Your task to perform on an android device: turn off improve location accuracy Image 0: 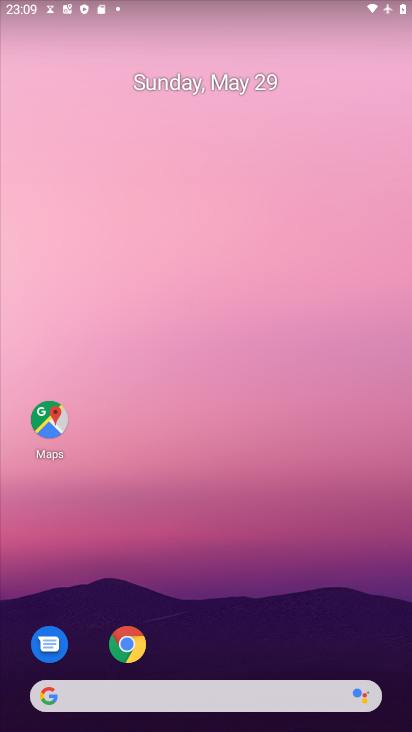
Step 0: drag from (217, 622) to (247, 271)
Your task to perform on an android device: turn off improve location accuracy Image 1: 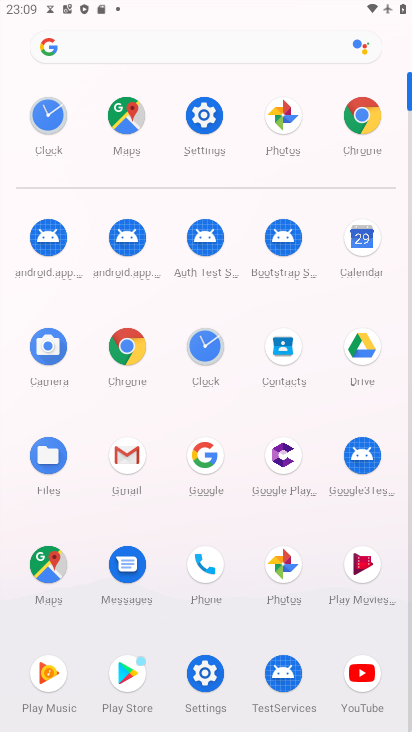
Step 1: click (201, 113)
Your task to perform on an android device: turn off improve location accuracy Image 2: 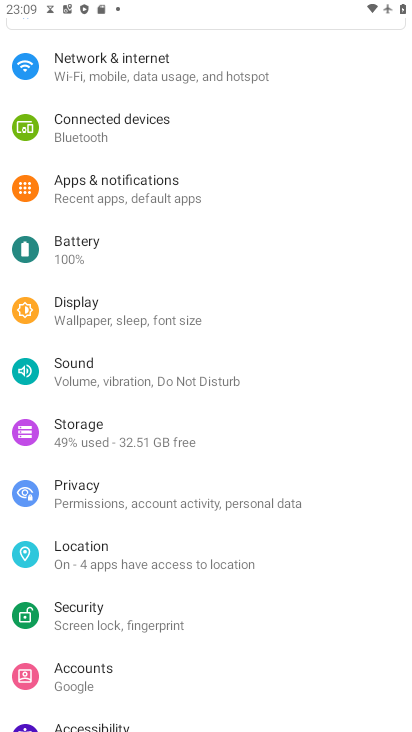
Step 2: click (139, 557)
Your task to perform on an android device: turn off improve location accuracy Image 3: 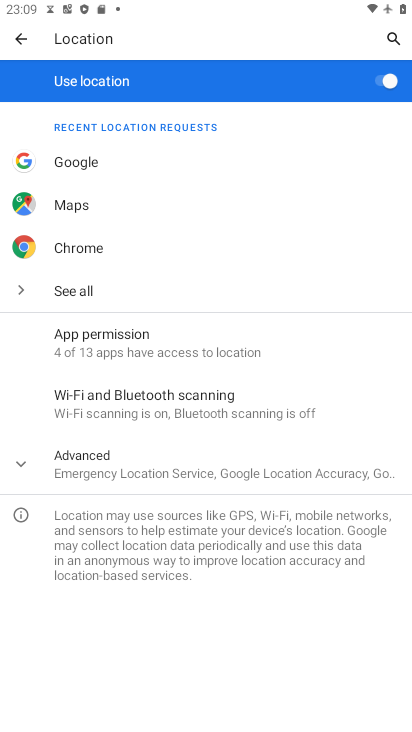
Step 3: click (141, 473)
Your task to perform on an android device: turn off improve location accuracy Image 4: 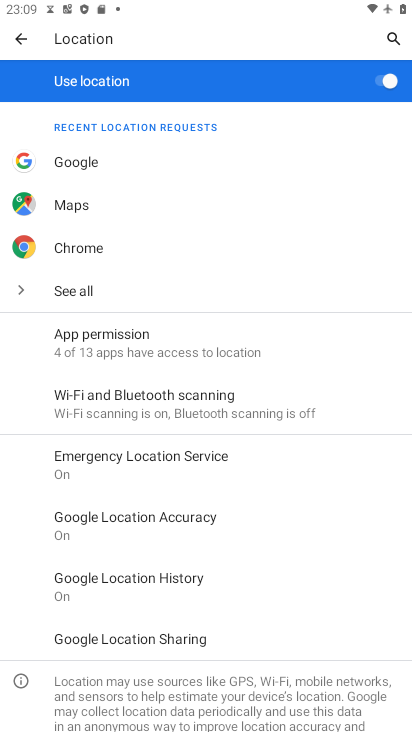
Step 4: click (127, 530)
Your task to perform on an android device: turn off improve location accuracy Image 5: 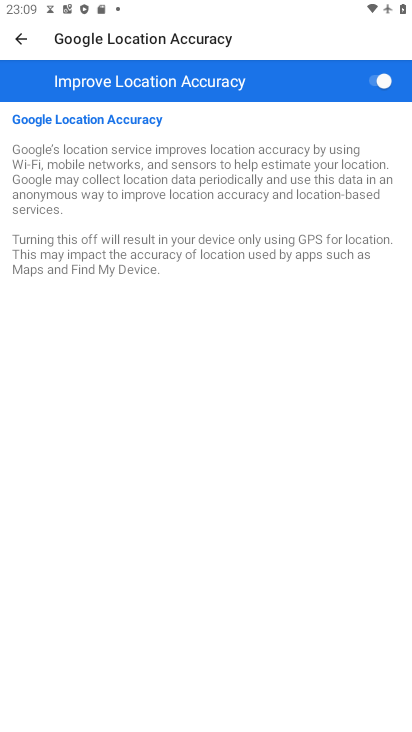
Step 5: click (376, 74)
Your task to perform on an android device: turn off improve location accuracy Image 6: 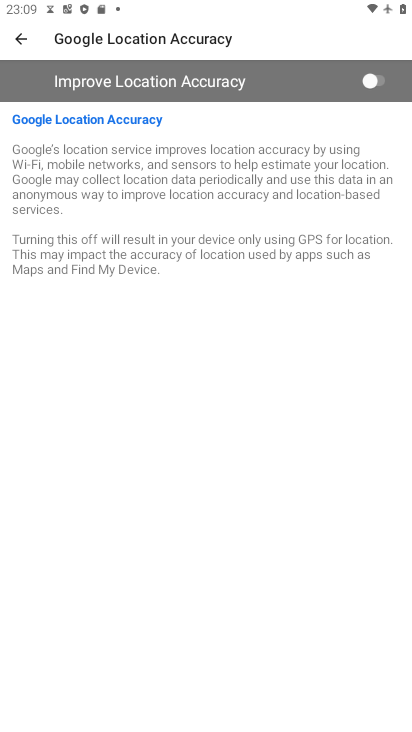
Step 6: task complete